Your task to perform on an android device: Go to location settings Image 0: 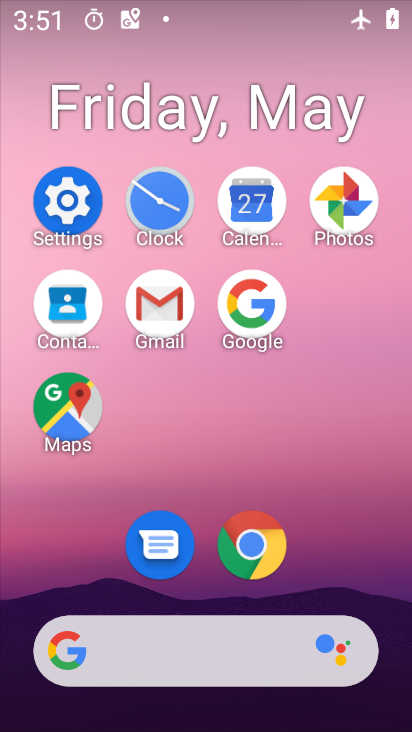
Step 0: click (88, 197)
Your task to perform on an android device: Go to location settings Image 1: 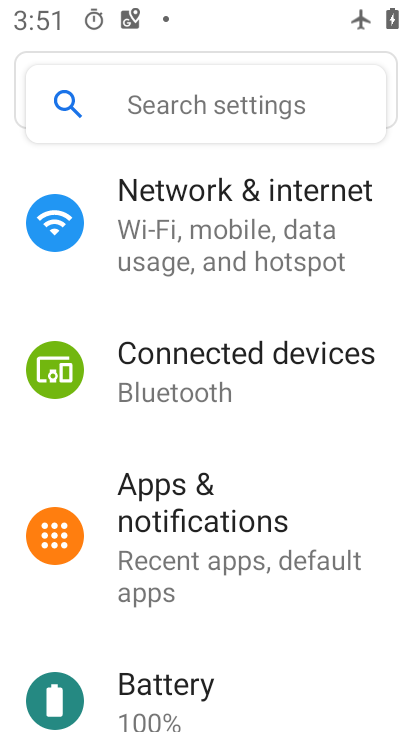
Step 1: drag from (285, 607) to (270, 101)
Your task to perform on an android device: Go to location settings Image 2: 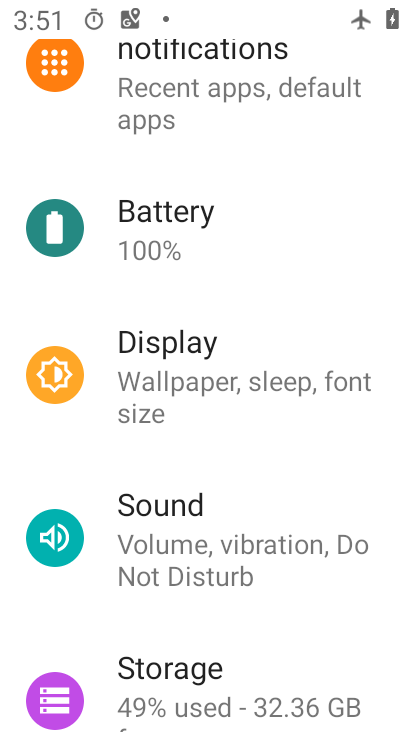
Step 2: drag from (256, 642) to (229, 34)
Your task to perform on an android device: Go to location settings Image 3: 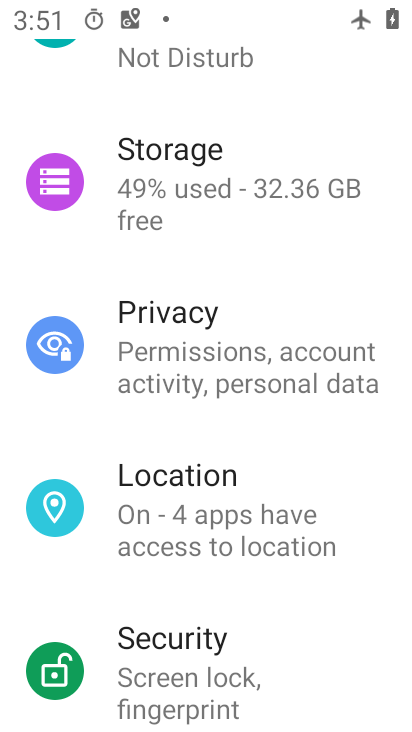
Step 3: click (296, 541)
Your task to perform on an android device: Go to location settings Image 4: 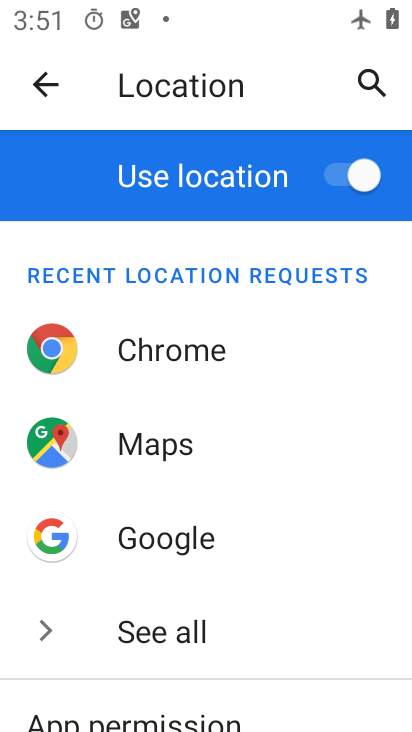
Step 4: task complete